Your task to perform on an android device: turn on translation in the chrome app Image 0: 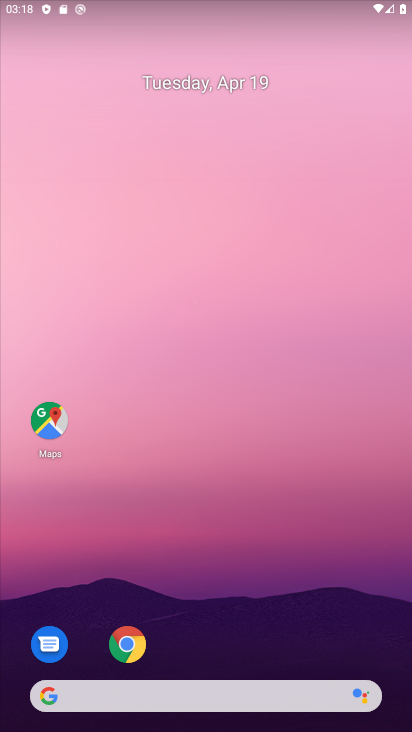
Step 0: click (124, 641)
Your task to perform on an android device: turn on translation in the chrome app Image 1: 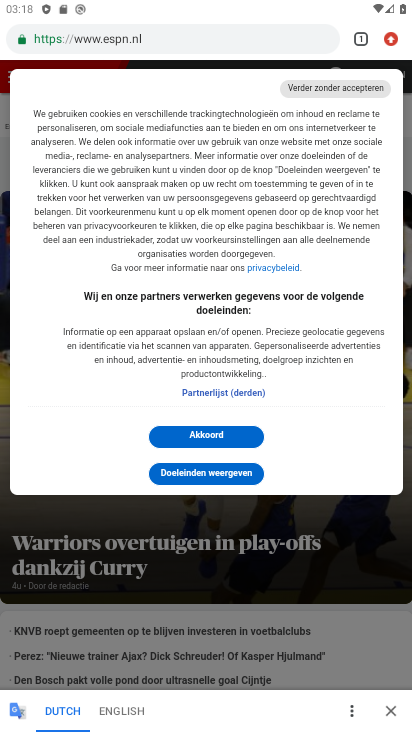
Step 1: click (389, 39)
Your task to perform on an android device: turn on translation in the chrome app Image 2: 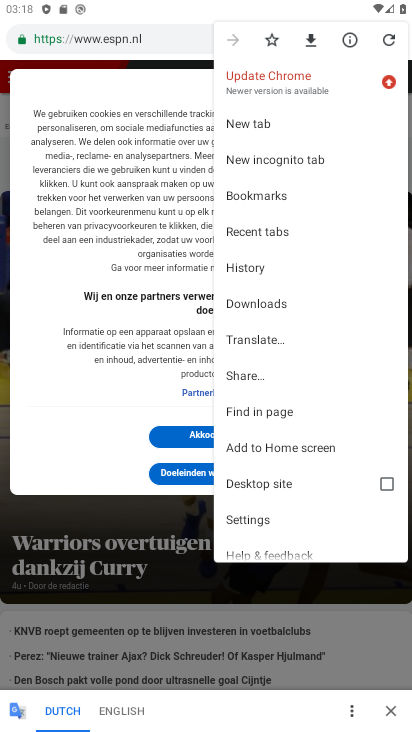
Step 2: click (265, 516)
Your task to perform on an android device: turn on translation in the chrome app Image 3: 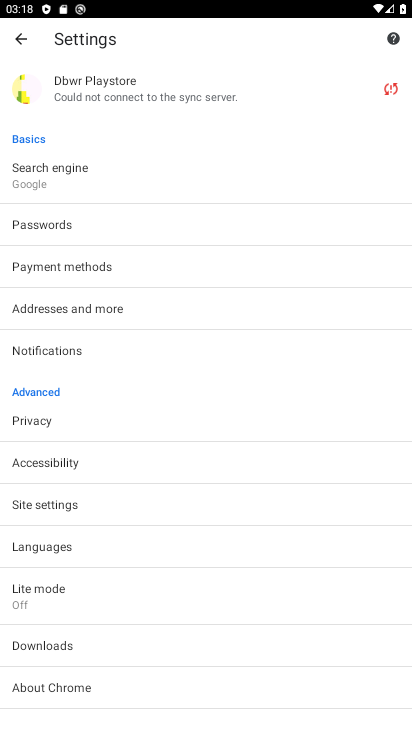
Step 3: click (43, 541)
Your task to perform on an android device: turn on translation in the chrome app Image 4: 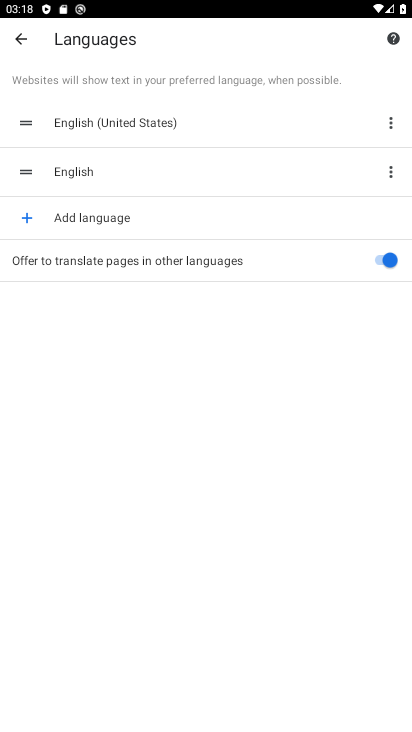
Step 4: task complete